Your task to perform on an android device: Open settings on Google Maps Image 0: 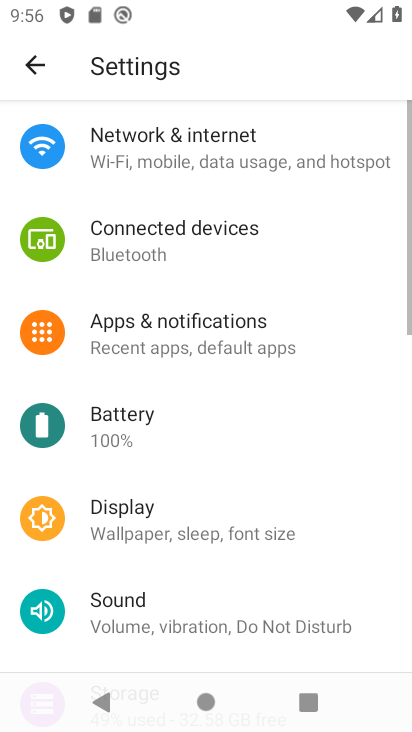
Step 0: press home button
Your task to perform on an android device: Open settings on Google Maps Image 1: 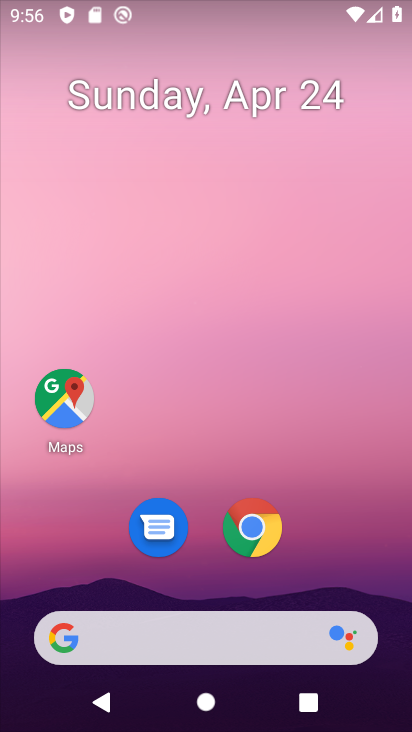
Step 1: click (55, 404)
Your task to perform on an android device: Open settings on Google Maps Image 2: 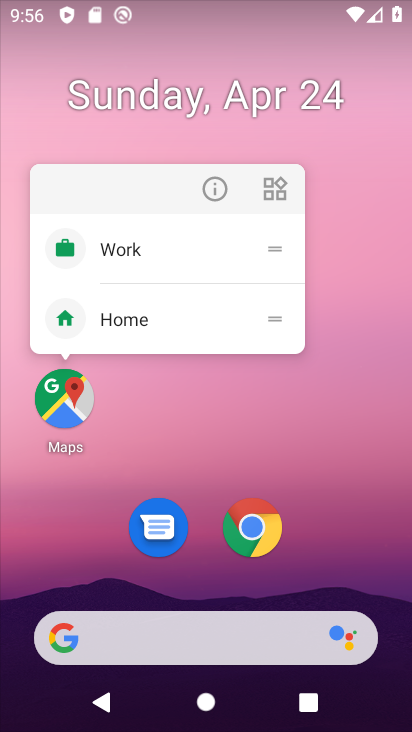
Step 2: click (54, 403)
Your task to perform on an android device: Open settings on Google Maps Image 3: 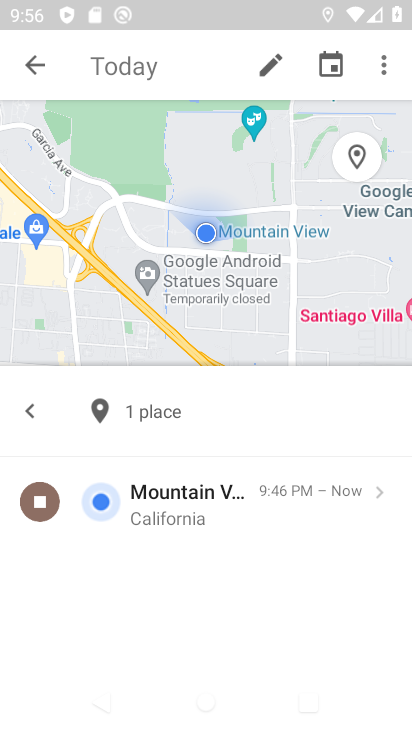
Step 3: click (41, 66)
Your task to perform on an android device: Open settings on Google Maps Image 4: 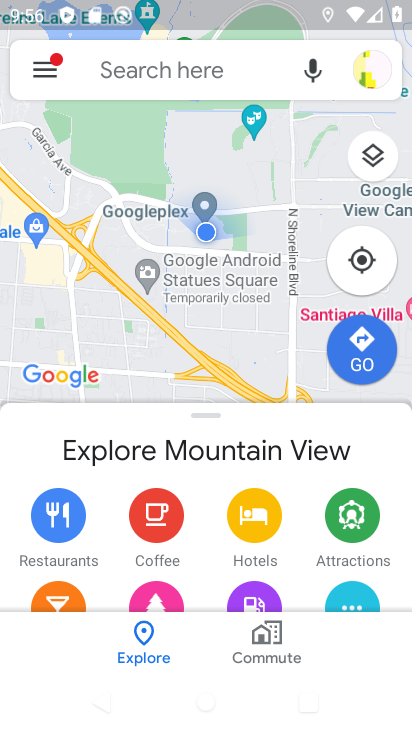
Step 4: click (44, 68)
Your task to perform on an android device: Open settings on Google Maps Image 5: 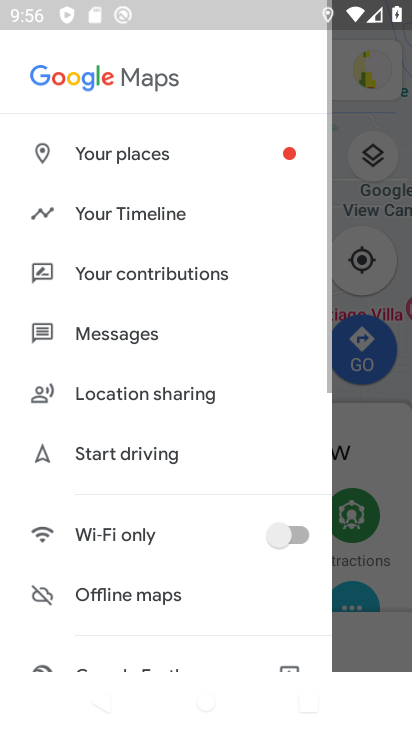
Step 5: drag from (135, 604) to (254, 73)
Your task to perform on an android device: Open settings on Google Maps Image 6: 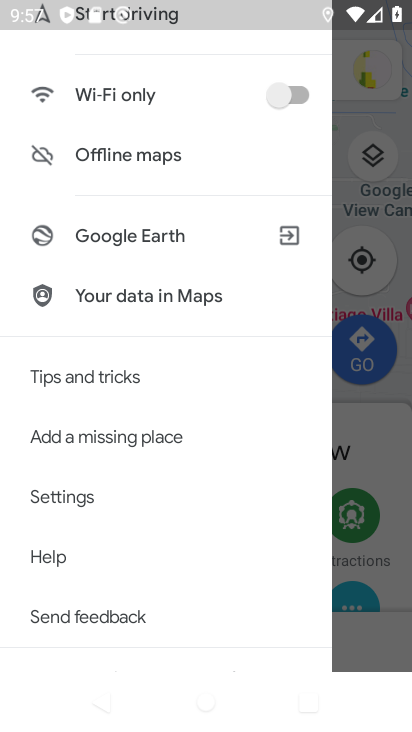
Step 6: click (109, 494)
Your task to perform on an android device: Open settings on Google Maps Image 7: 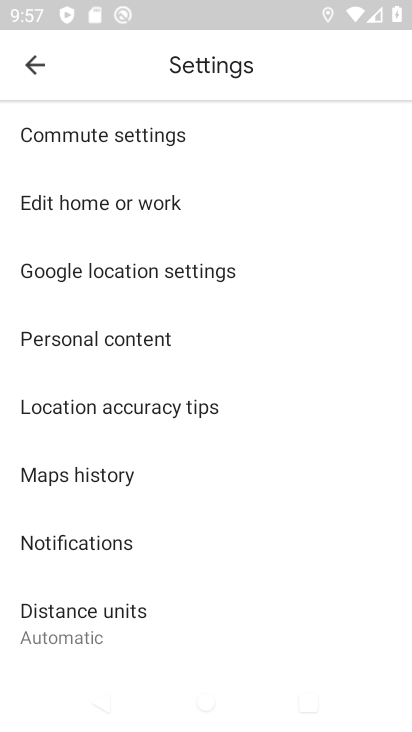
Step 7: task complete